Your task to perform on an android device: open a bookmark in the chrome app Image 0: 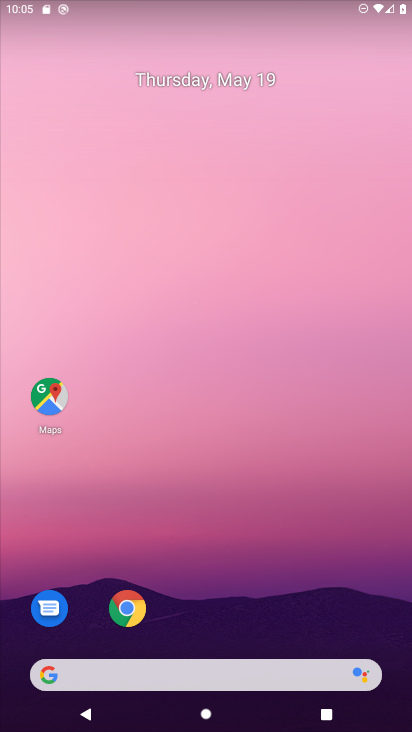
Step 0: click (127, 606)
Your task to perform on an android device: open a bookmark in the chrome app Image 1: 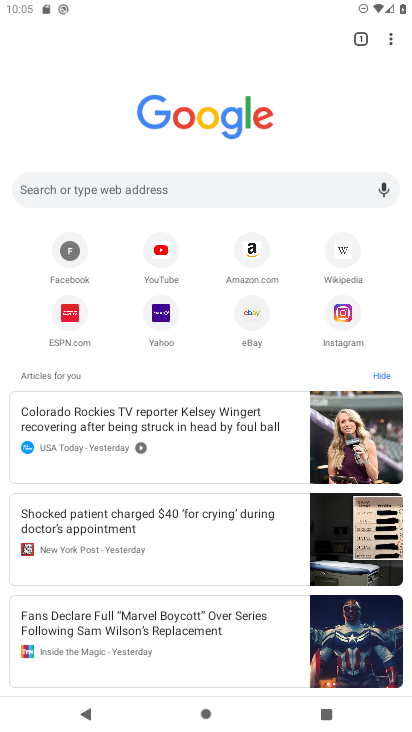
Step 1: click (395, 42)
Your task to perform on an android device: open a bookmark in the chrome app Image 2: 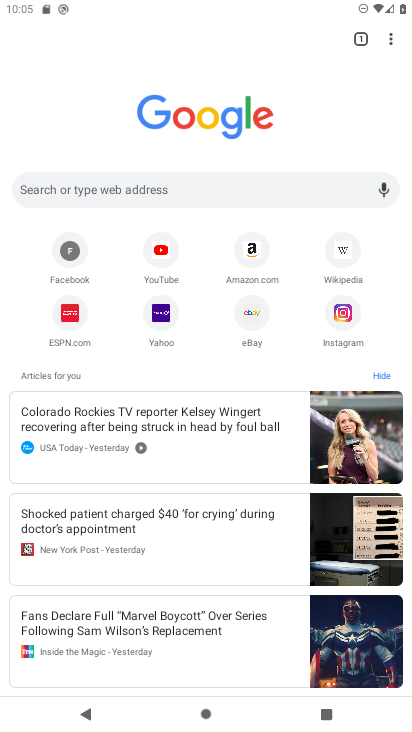
Step 2: click (396, 40)
Your task to perform on an android device: open a bookmark in the chrome app Image 3: 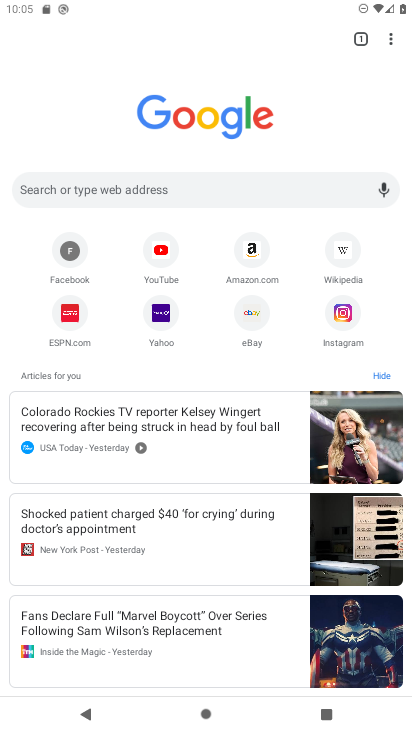
Step 3: click (393, 33)
Your task to perform on an android device: open a bookmark in the chrome app Image 4: 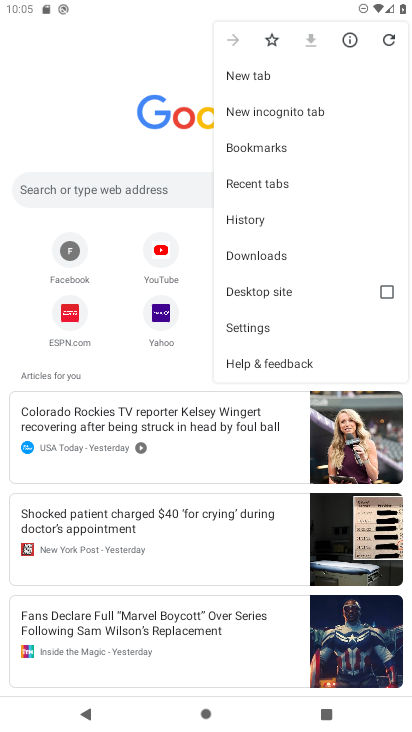
Step 4: click (277, 140)
Your task to perform on an android device: open a bookmark in the chrome app Image 5: 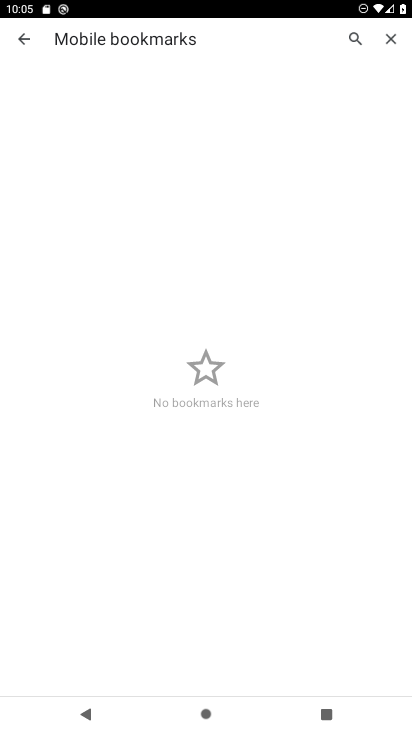
Step 5: task complete